Your task to perform on an android device: Open Youtube and go to "Your channel" Image 0: 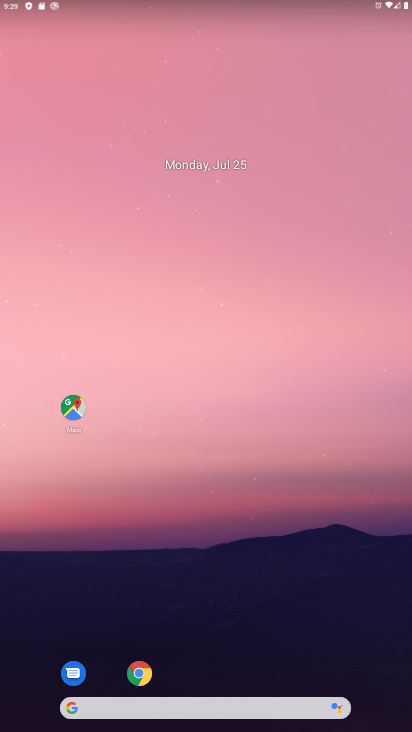
Step 0: drag from (226, 672) to (215, 49)
Your task to perform on an android device: Open Youtube and go to "Your channel" Image 1: 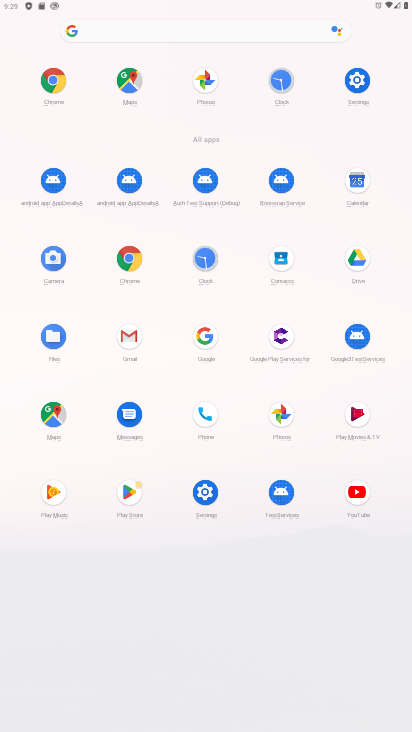
Step 1: click (343, 504)
Your task to perform on an android device: Open Youtube and go to "Your channel" Image 2: 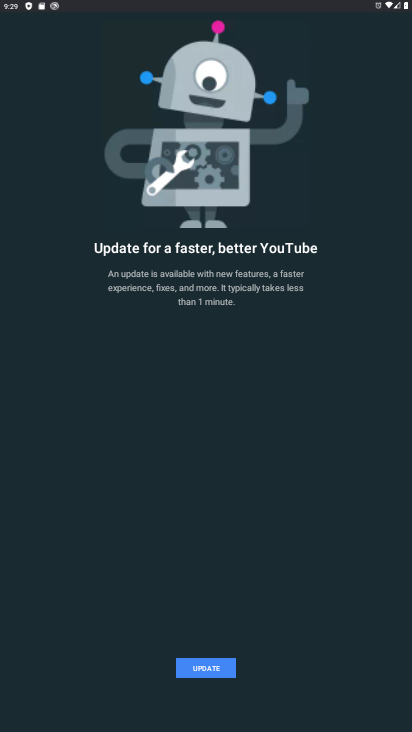
Step 2: click (195, 676)
Your task to perform on an android device: Open Youtube and go to "Your channel" Image 3: 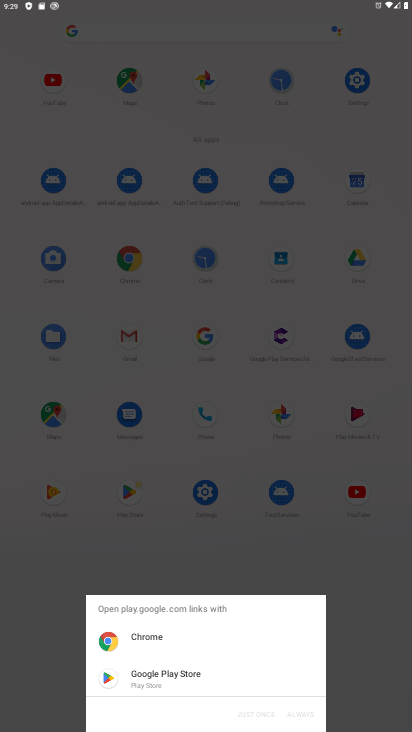
Step 3: click (196, 674)
Your task to perform on an android device: Open Youtube and go to "Your channel" Image 4: 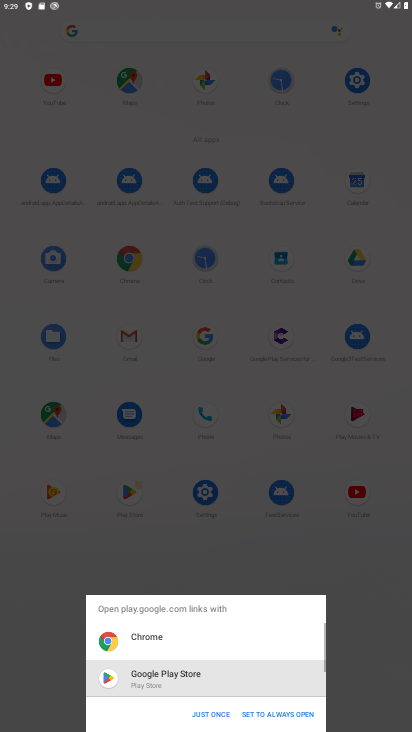
Step 4: click (277, 674)
Your task to perform on an android device: Open Youtube and go to "Your channel" Image 5: 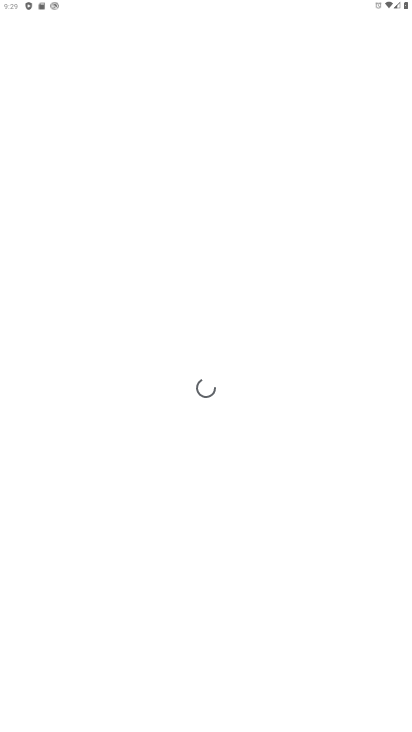
Step 5: click (195, 718)
Your task to perform on an android device: Open Youtube and go to "Your channel" Image 6: 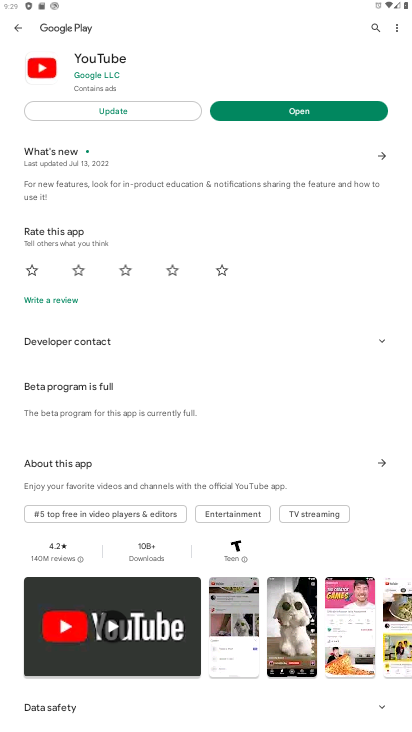
Step 6: click (139, 118)
Your task to perform on an android device: Open Youtube and go to "Your channel" Image 7: 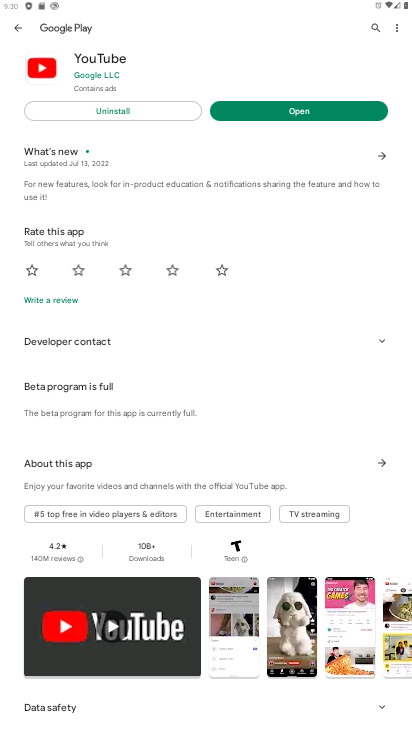
Step 7: click (322, 114)
Your task to perform on an android device: Open Youtube and go to "Your channel" Image 8: 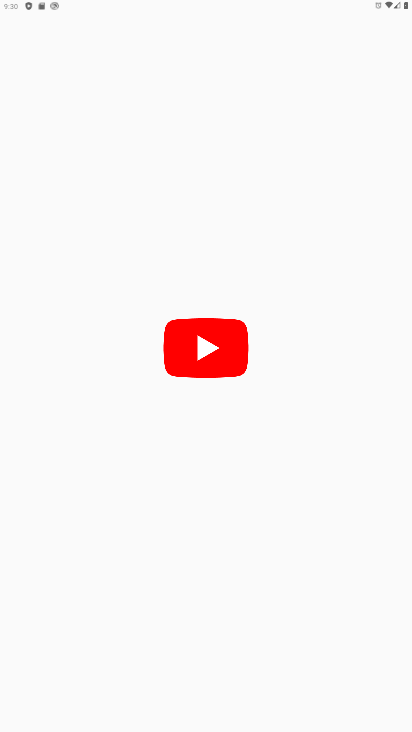
Step 8: click (322, 114)
Your task to perform on an android device: Open Youtube and go to "Your channel" Image 9: 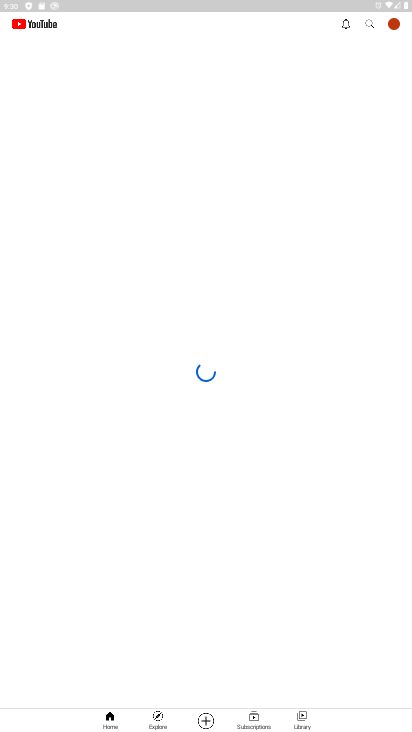
Step 9: click (387, 23)
Your task to perform on an android device: Open Youtube and go to "Your channel" Image 10: 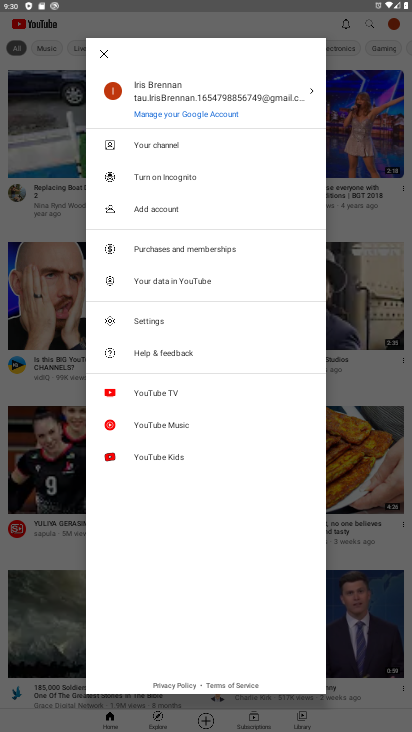
Step 10: click (146, 144)
Your task to perform on an android device: Open Youtube and go to "Your channel" Image 11: 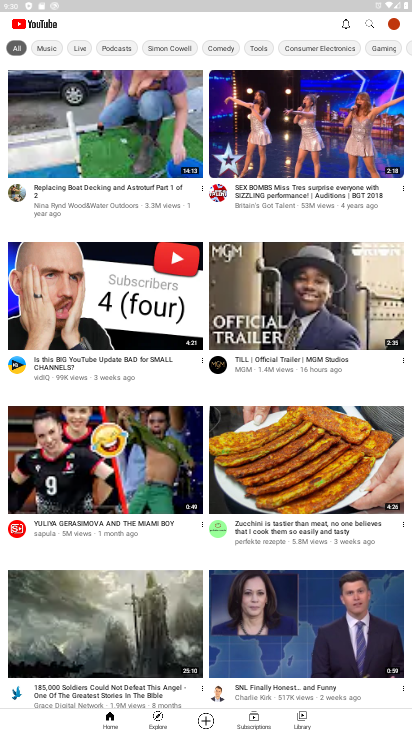
Step 11: task complete